Your task to perform on an android device: Search for flights from Boston to Sydney Image 0: 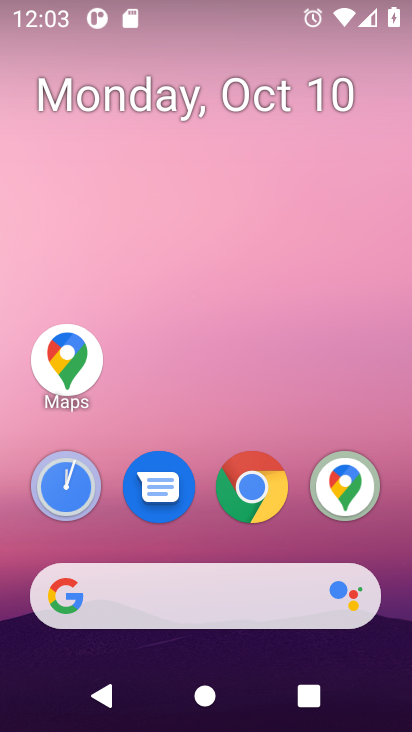
Step 0: drag from (201, 561) to (195, 32)
Your task to perform on an android device: Search for flights from Boston to Sydney Image 1: 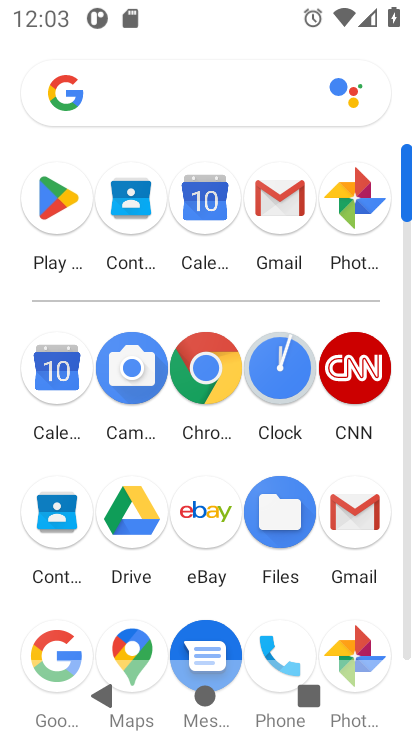
Step 1: click (199, 367)
Your task to perform on an android device: Search for flights from Boston to Sydney Image 2: 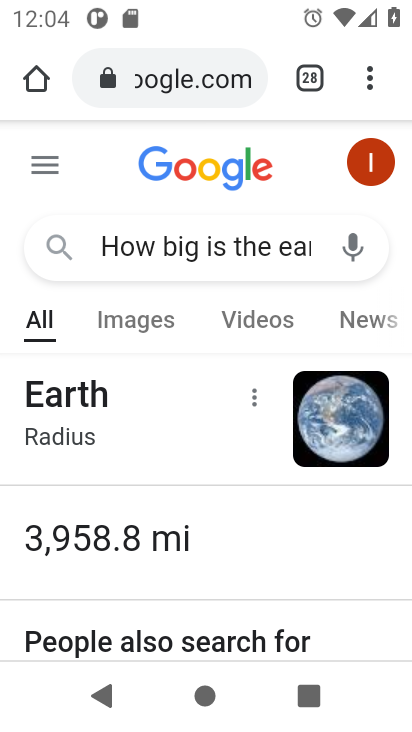
Step 2: click (196, 242)
Your task to perform on an android device: Search for flights from Boston to Sydney Image 3: 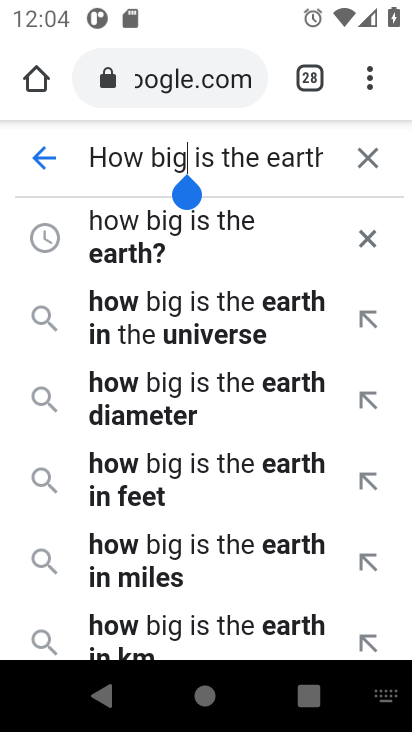
Step 3: click (368, 154)
Your task to perform on an android device: Search for flights from Boston to Sydney Image 4: 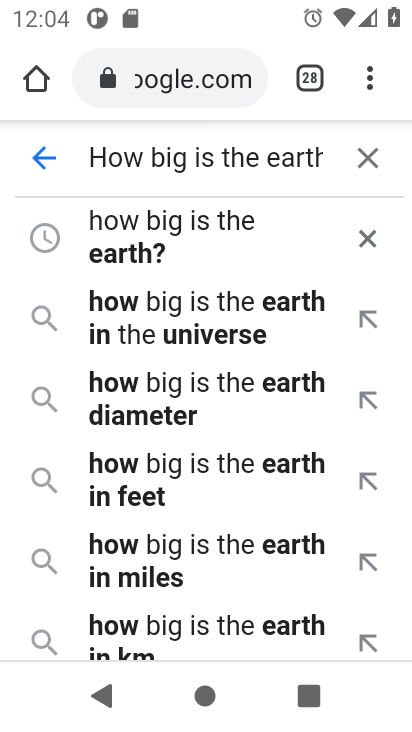
Step 4: click (364, 154)
Your task to perform on an android device: Search for flights from Boston to Sydney Image 5: 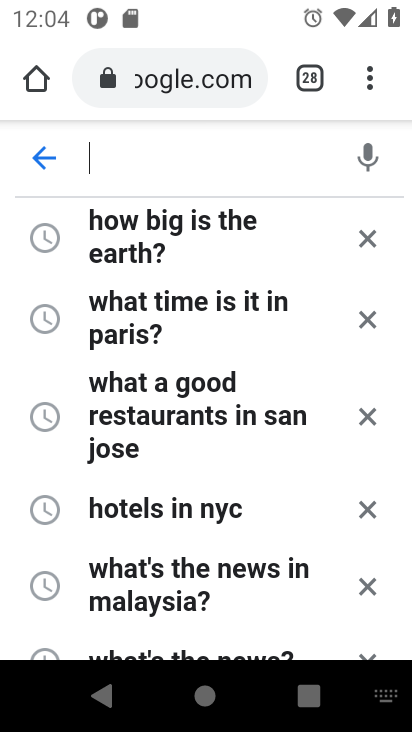
Step 5: type "flights from Boston to Sydney"
Your task to perform on an android device: Search for flights from Boston to Sydney Image 6: 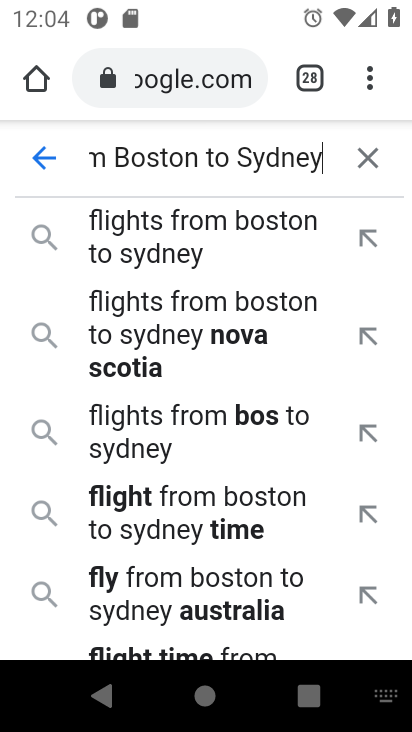
Step 6: type ""
Your task to perform on an android device: Search for flights from Boston to Sydney Image 7: 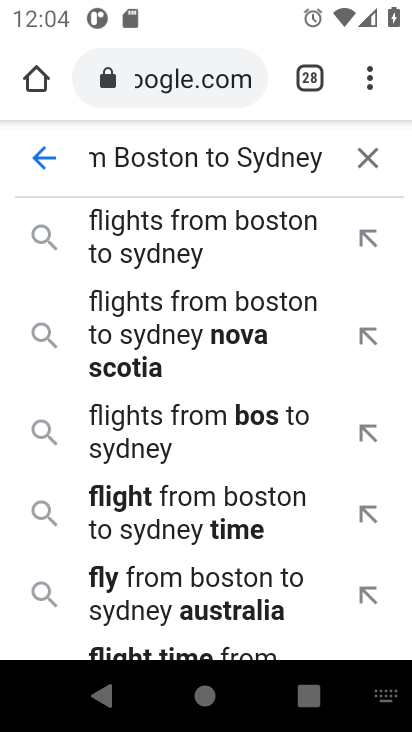
Step 7: click (193, 236)
Your task to perform on an android device: Search for flights from Boston to Sydney Image 8: 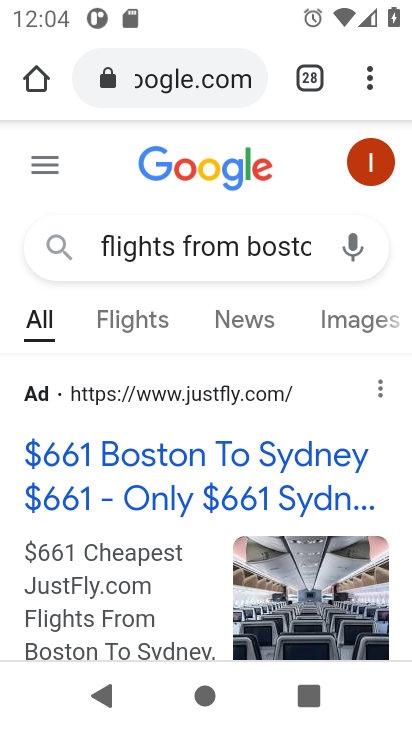
Step 8: drag from (171, 543) to (155, 400)
Your task to perform on an android device: Search for flights from Boston to Sydney Image 9: 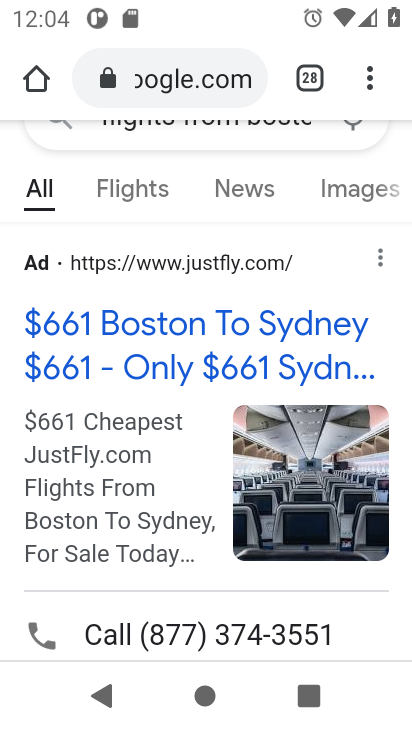
Step 9: click (146, 189)
Your task to perform on an android device: Search for flights from Boston to Sydney Image 10: 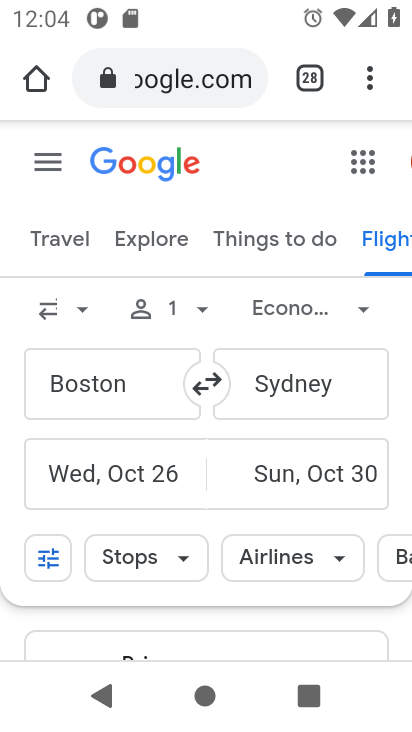
Step 10: task complete